Your task to perform on an android device: check storage Image 0: 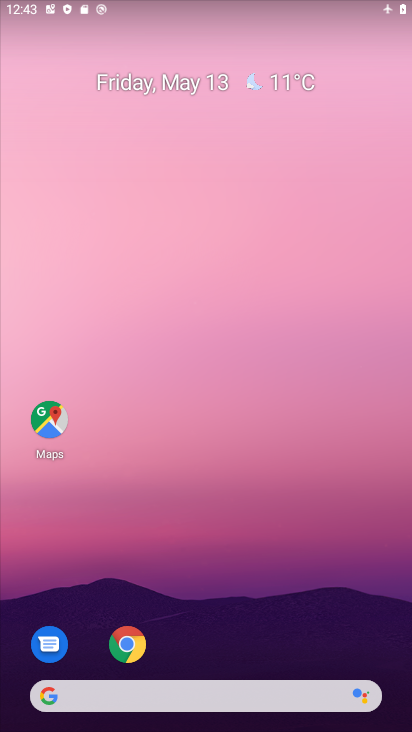
Step 0: drag from (218, 701) to (178, 141)
Your task to perform on an android device: check storage Image 1: 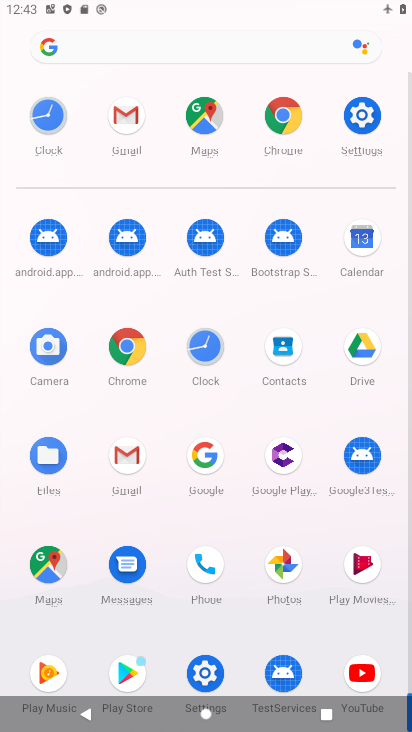
Step 1: click (360, 119)
Your task to perform on an android device: check storage Image 2: 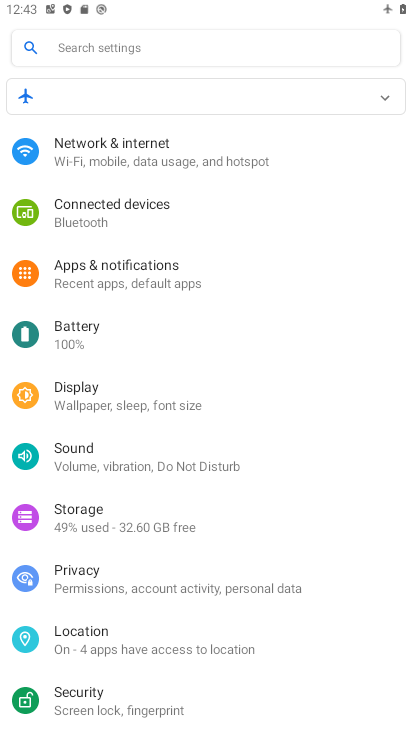
Step 2: click (101, 517)
Your task to perform on an android device: check storage Image 3: 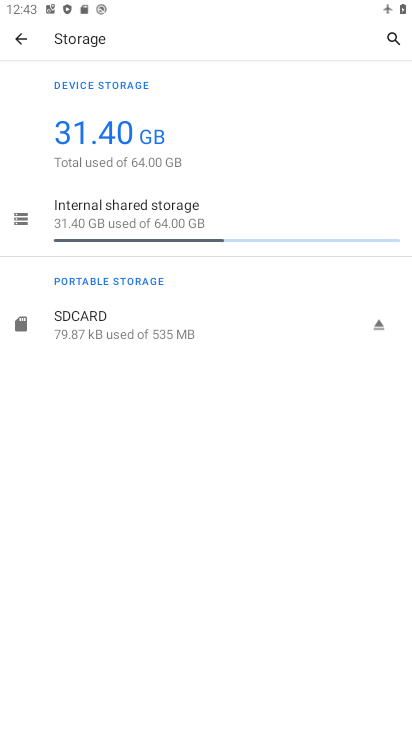
Step 3: task complete